Your task to perform on an android device: clear history in the chrome app Image 0: 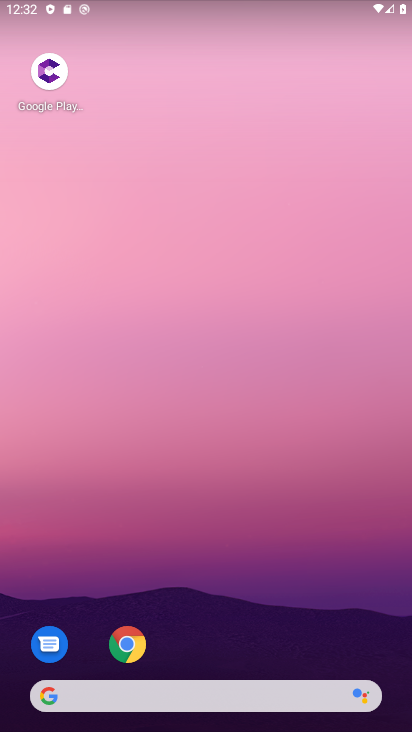
Step 0: click (134, 646)
Your task to perform on an android device: clear history in the chrome app Image 1: 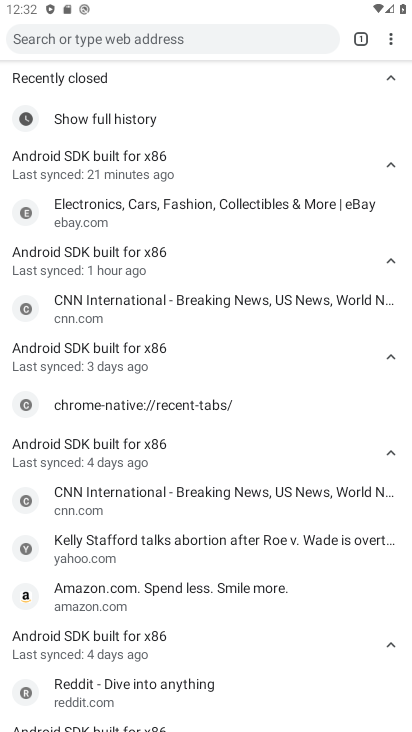
Step 1: click (126, 126)
Your task to perform on an android device: clear history in the chrome app Image 2: 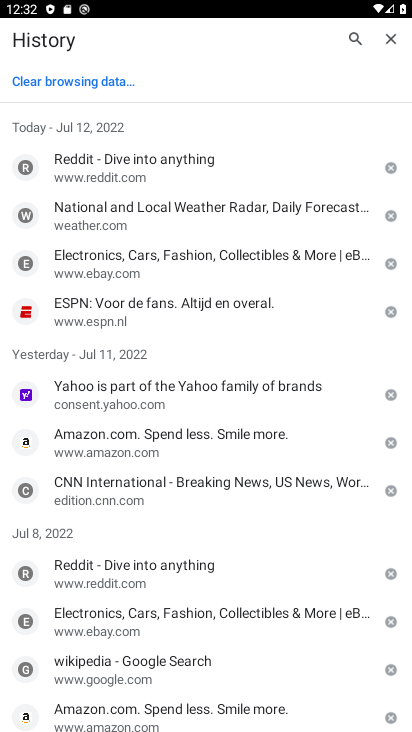
Step 2: click (104, 77)
Your task to perform on an android device: clear history in the chrome app Image 3: 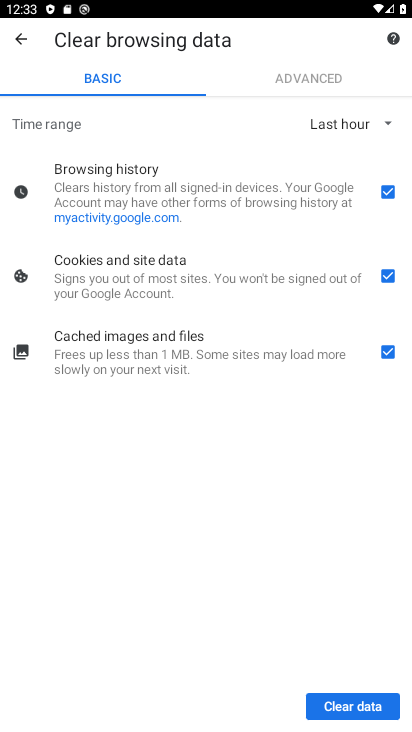
Step 3: click (361, 705)
Your task to perform on an android device: clear history in the chrome app Image 4: 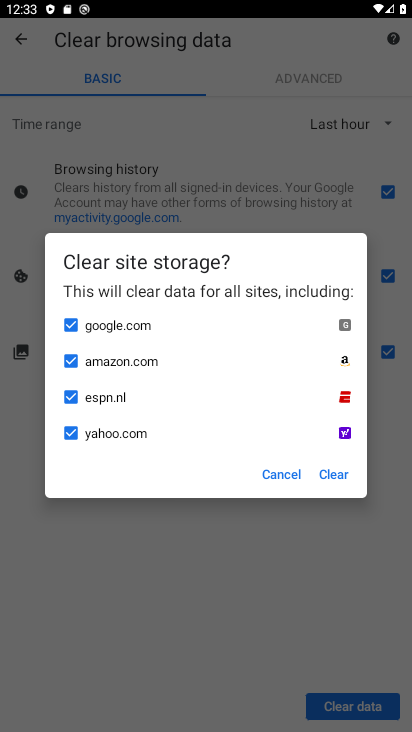
Step 4: click (362, 705)
Your task to perform on an android device: clear history in the chrome app Image 5: 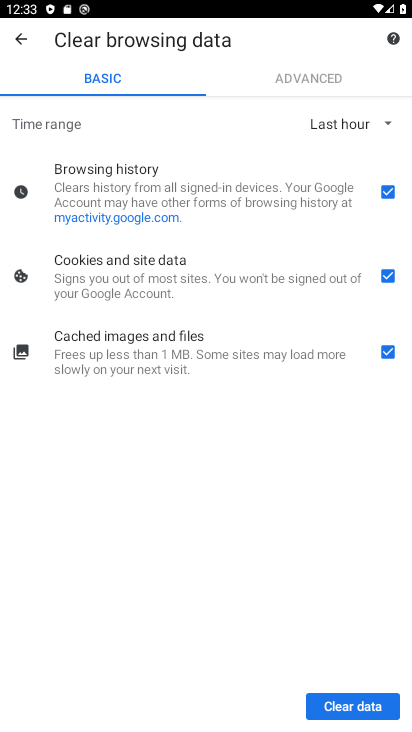
Step 5: click (363, 705)
Your task to perform on an android device: clear history in the chrome app Image 6: 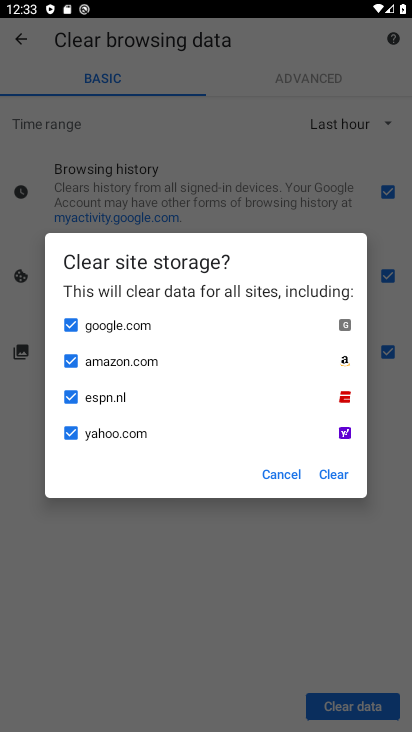
Step 6: click (336, 475)
Your task to perform on an android device: clear history in the chrome app Image 7: 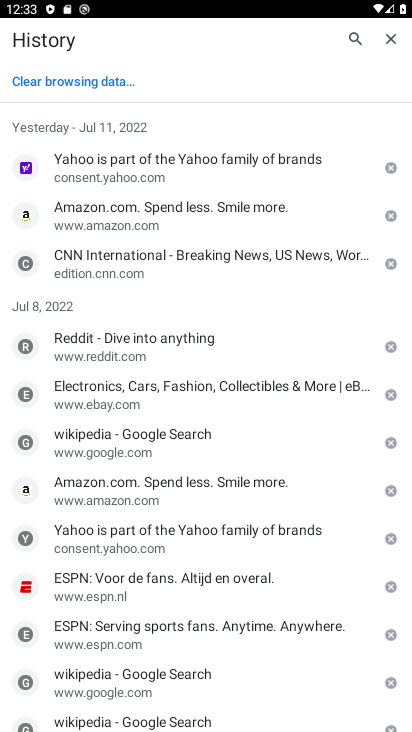
Step 7: task complete